Your task to perform on an android device: Go to display settings Image 0: 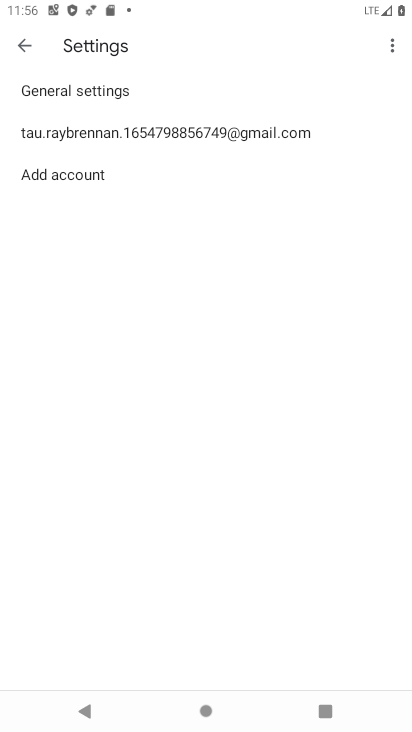
Step 0: press home button
Your task to perform on an android device: Go to display settings Image 1: 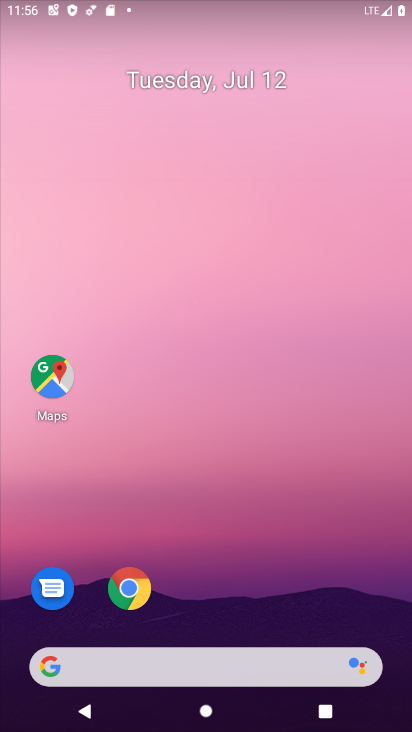
Step 1: drag from (403, 694) to (277, 122)
Your task to perform on an android device: Go to display settings Image 2: 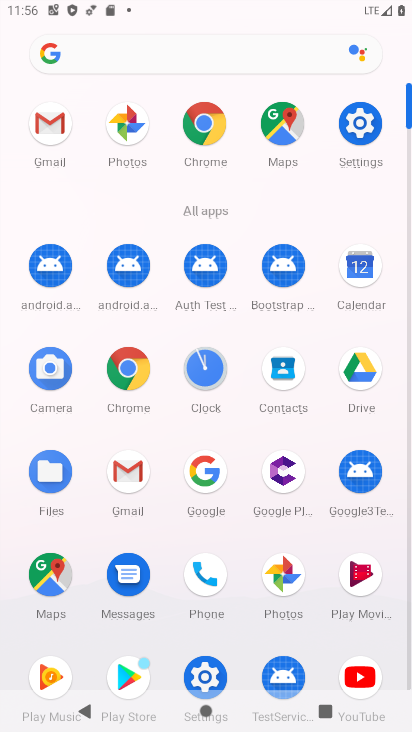
Step 2: click (358, 125)
Your task to perform on an android device: Go to display settings Image 3: 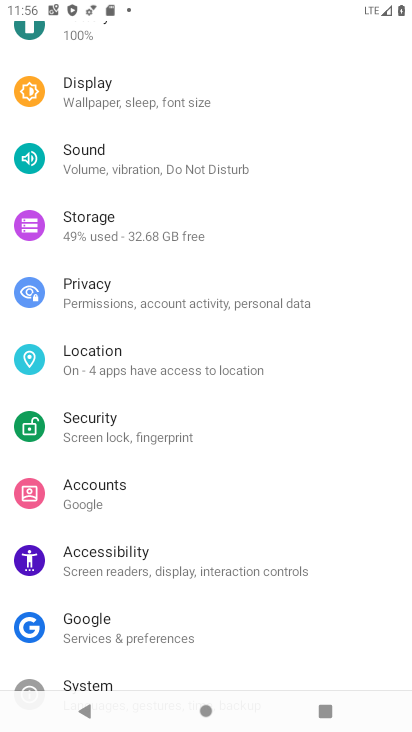
Step 3: click (78, 96)
Your task to perform on an android device: Go to display settings Image 4: 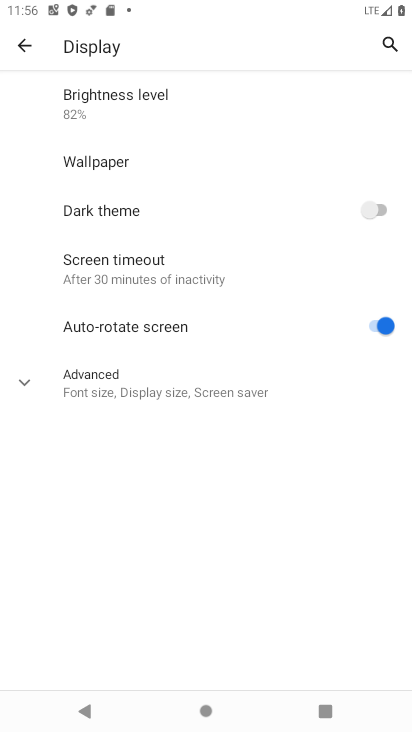
Step 4: click (34, 384)
Your task to perform on an android device: Go to display settings Image 5: 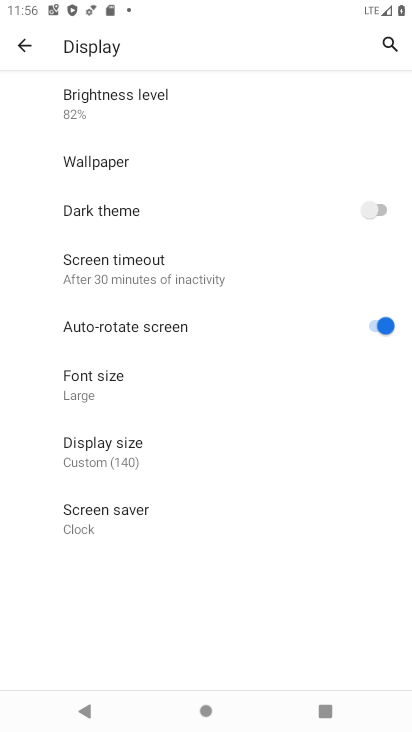
Step 5: task complete